Your task to perform on an android device: set the timer Image 0: 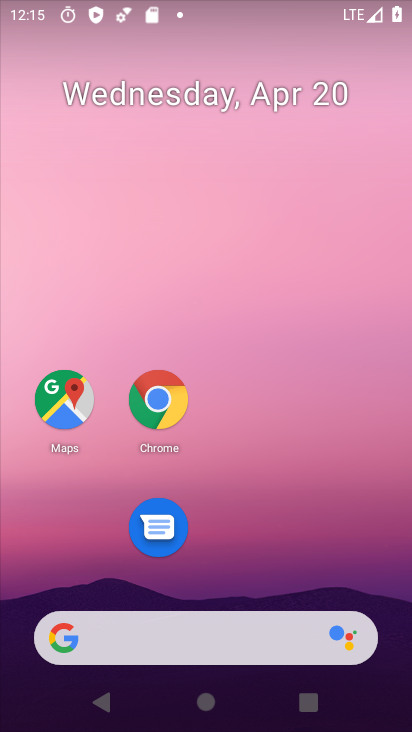
Step 0: drag from (249, 638) to (250, 190)
Your task to perform on an android device: set the timer Image 1: 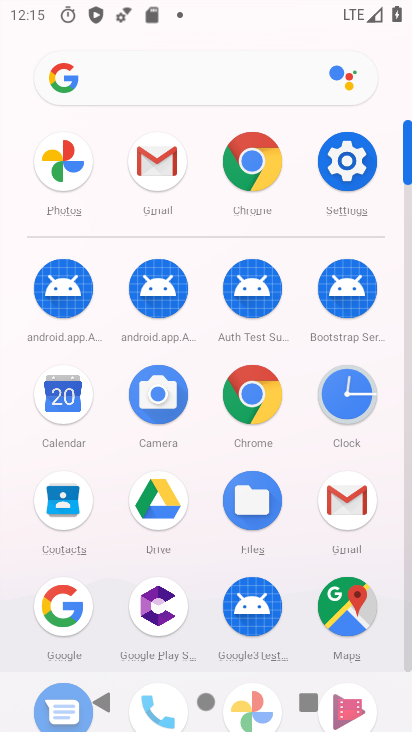
Step 1: click (340, 390)
Your task to perform on an android device: set the timer Image 2: 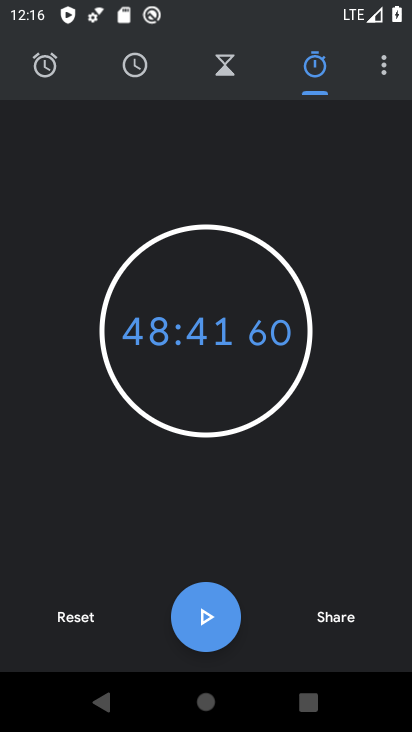
Step 2: click (211, 60)
Your task to perform on an android device: set the timer Image 3: 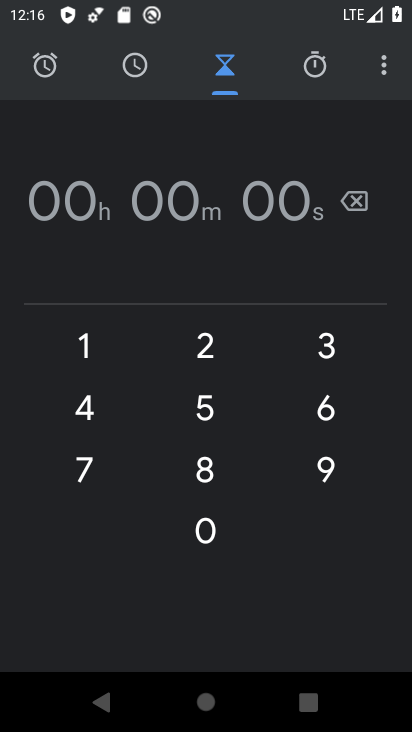
Step 3: click (223, 339)
Your task to perform on an android device: set the timer Image 4: 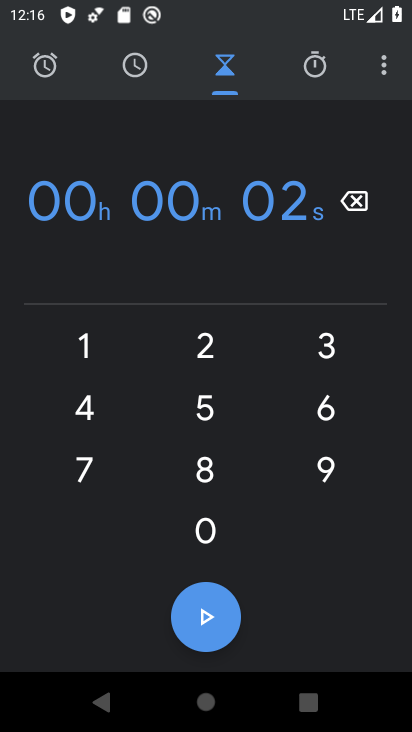
Step 4: click (203, 419)
Your task to perform on an android device: set the timer Image 5: 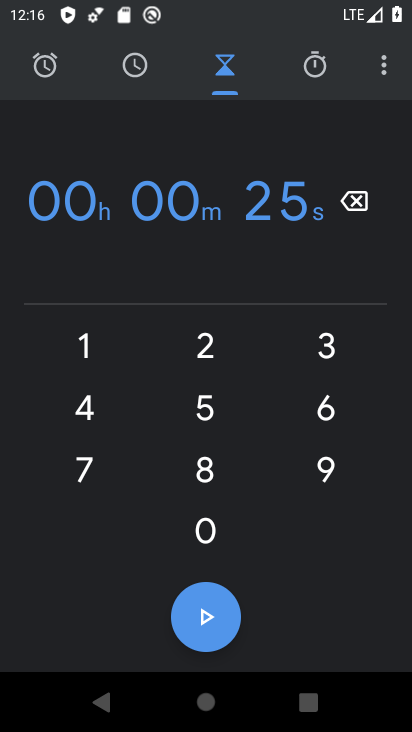
Step 5: click (103, 423)
Your task to perform on an android device: set the timer Image 6: 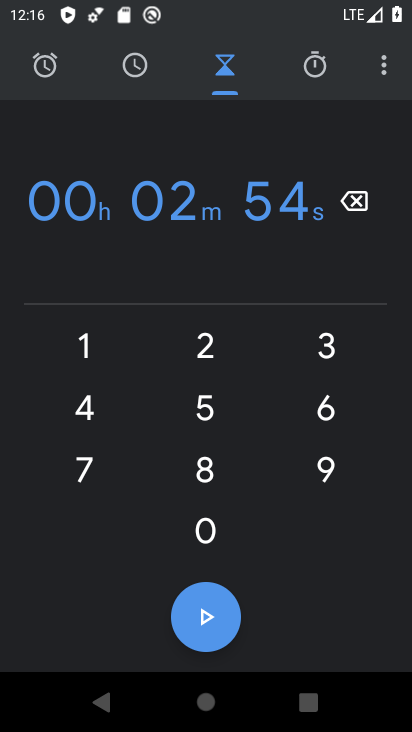
Step 6: click (212, 479)
Your task to perform on an android device: set the timer Image 7: 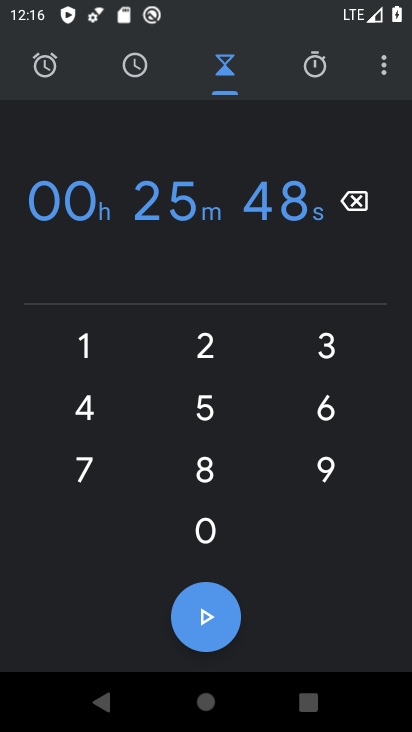
Step 7: click (336, 359)
Your task to perform on an android device: set the timer Image 8: 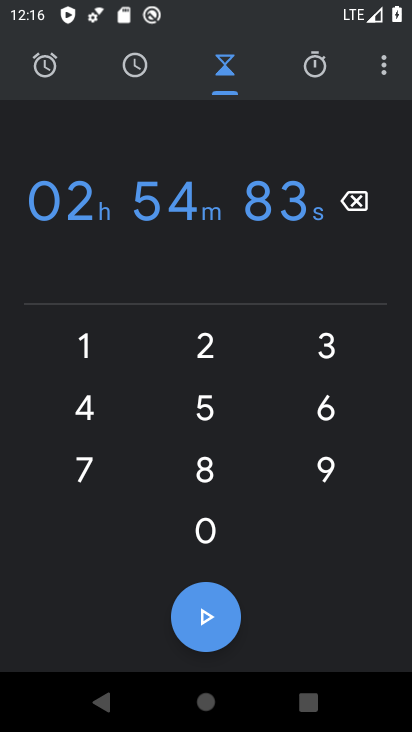
Step 8: click (247, 405)
Your task to perform on an android device: set the timer Image 9: 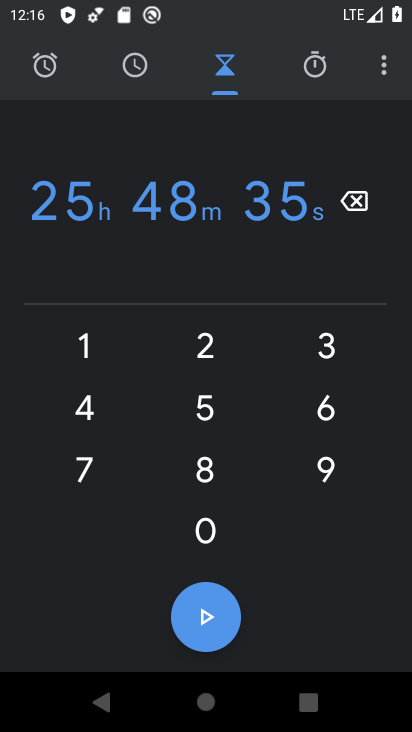
Step 9: task complete